Your task to perform on an android device: visit the assistant section in the google photos Image 0: 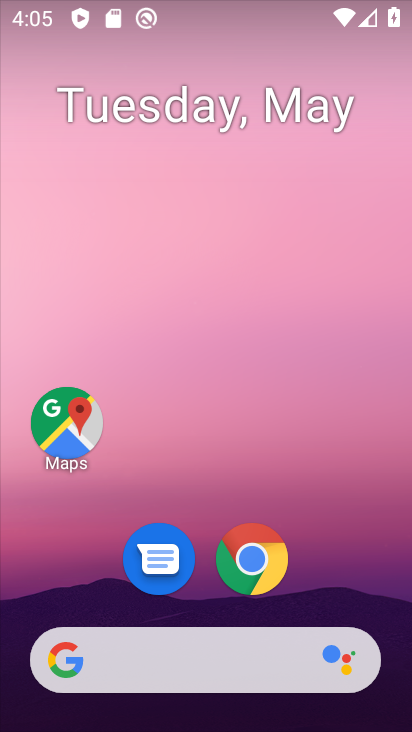
Step 0: drag from (341, 580) to (306, 116)
Your task to perform on an android device: visit the assistant section in the google photos Image 1: 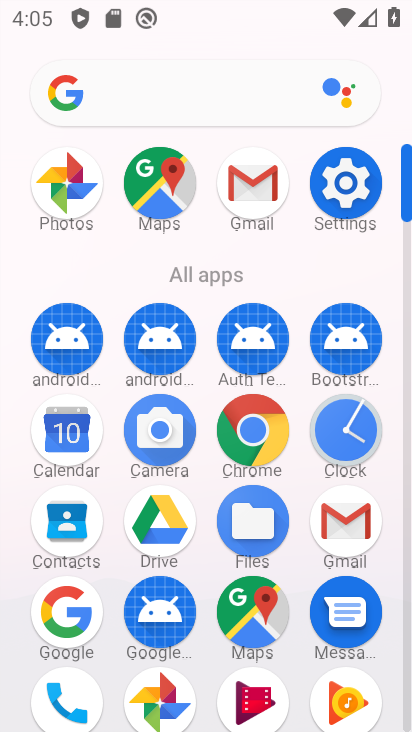
Step 1: click (162, 685)
Your task to perform on an android device: visit the assistant section in the google photos Image 2: 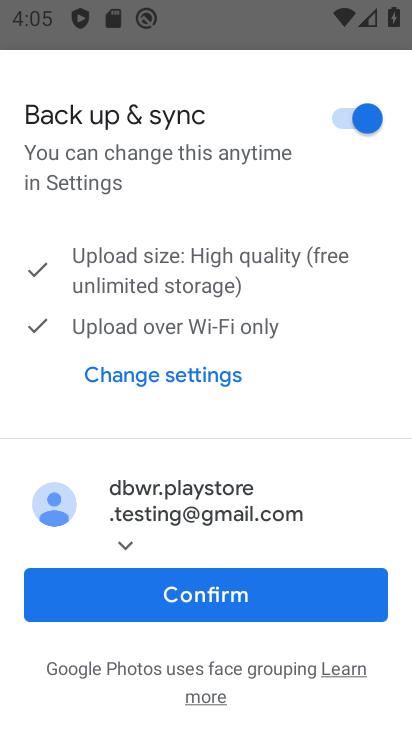
Step 2: click (269, 590)
Your task to perform on an android device: visit the assistant section in the google photos Image 3: 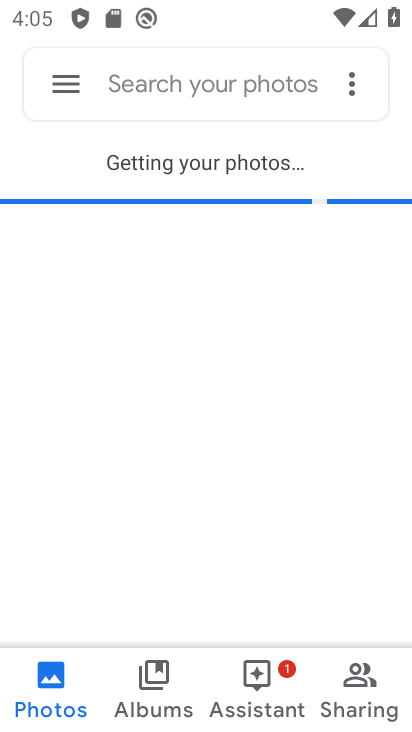
Step 3: click (265, 683)
Your task to perform on an android device: visit the assistant section in the google photos Image 4: 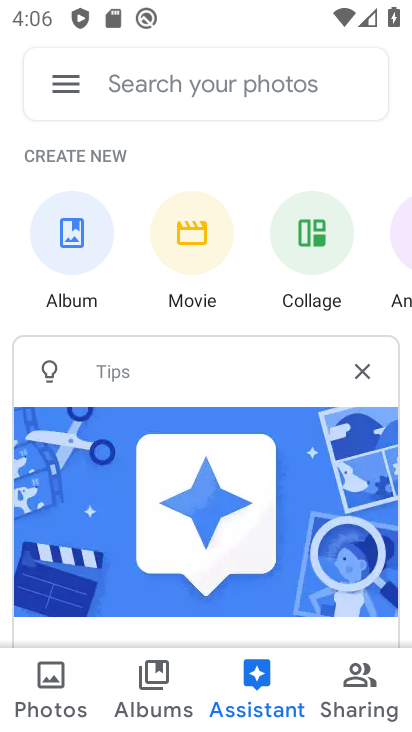
Step 4: task complete